Your task to perform on an android device: toggle show notifications on the lock screen Image 0: 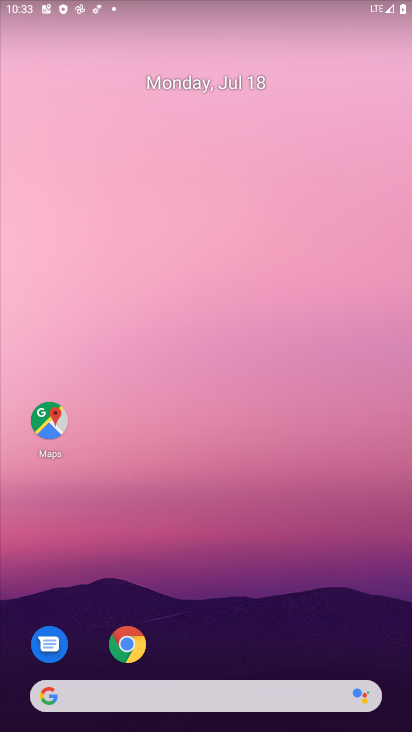
Step 0: drag from (333, 644) to (328, 180)
Your task to perform on an android device: toggle show notifications on the lock screen Image 1: 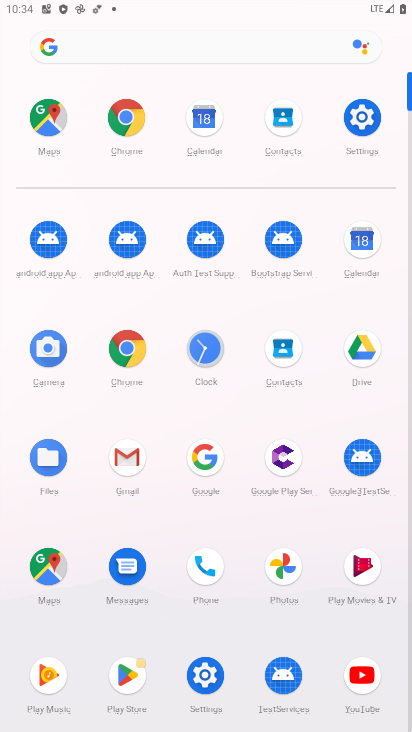
Step 1: click (362, 124)
Your task to perform on an android device: toggle show notifications on the lock screen Image 2: 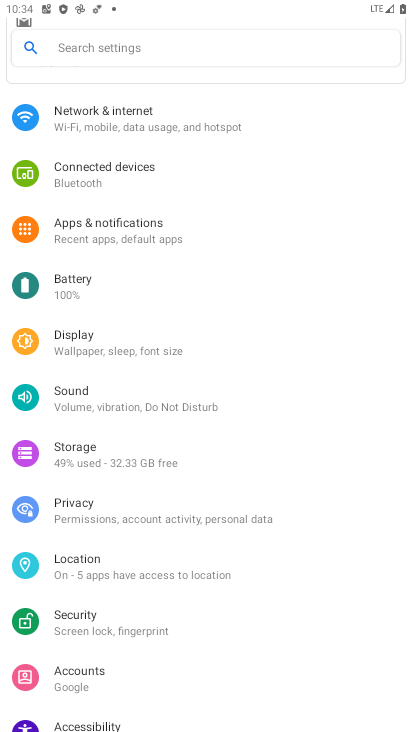
Step 2: drag from (332, 396) to (333, 331)
Your task to perform on an android device: toggle show notifications on the lock screen Image 3: 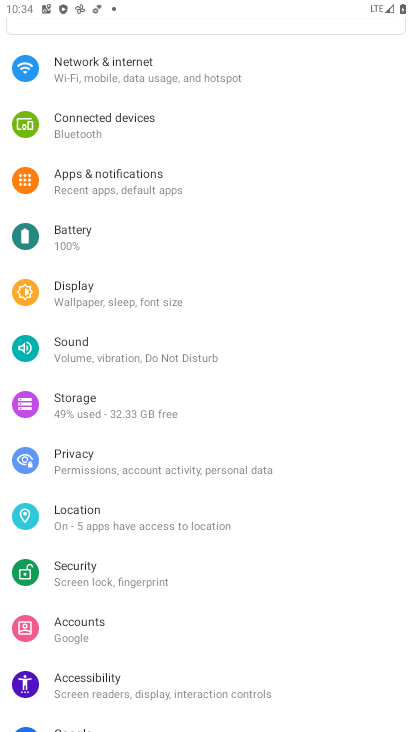
Step 3: drag from (329, 407) to (337, 340)
Your task to perform on an android device: toggle show notifications on the lock screen Image 4: 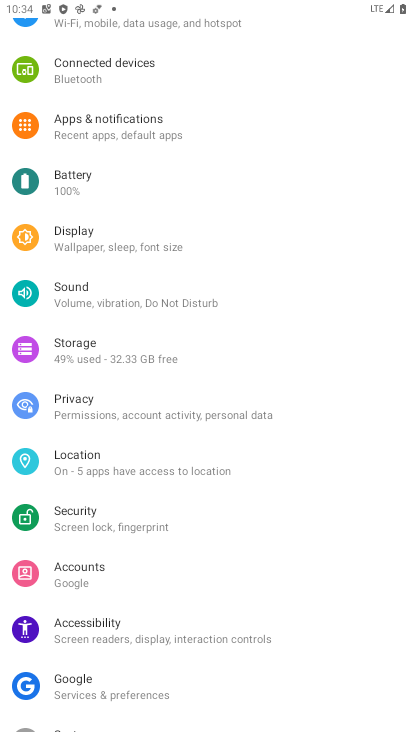
Step 4: drag from (325, 439) to (330, 368)
Your task to perform on an android device: toggle show notifications on the lock screen Image 5: 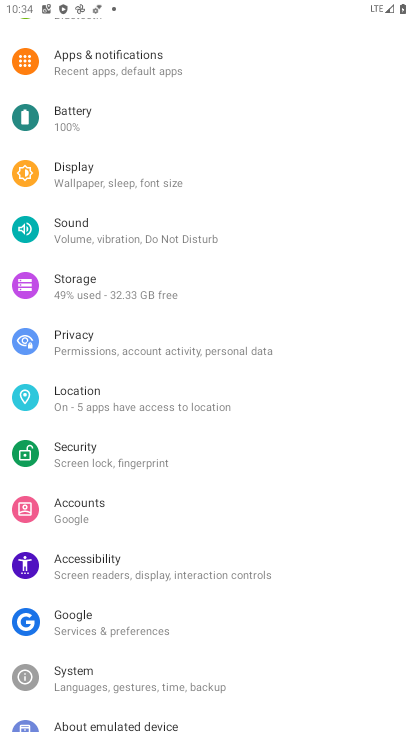
Step 5: drag from (325, 454) to (336, 371)
Your task to perform on an android device: toggle show notifications on the lock screen Image 6: 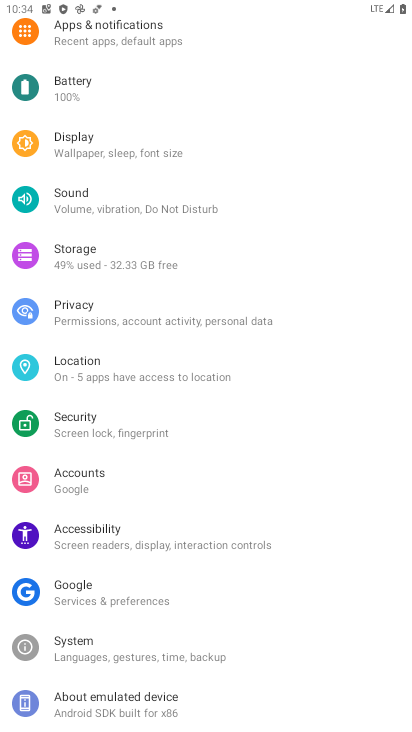
Step 6: drag from (329, 306) to (325, 389)
Your task to perform on an android device: toggle show notifications on the lock screen Image 7: 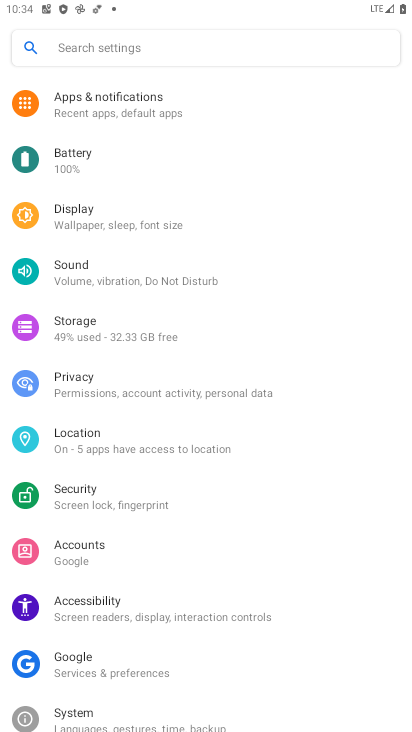
Step 7: drag from (320, 262) to (329, 357)
Your task to perform on an android device: toggle show notifications on the lock screen Image 8: 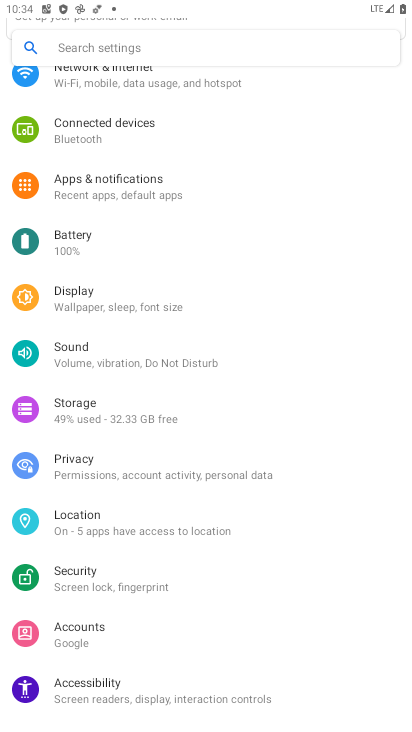
Step 8: drag from (320, 195) to (323, 320)
Your task to perform on an android device: toggle show notifications on the lock screen Image 9: 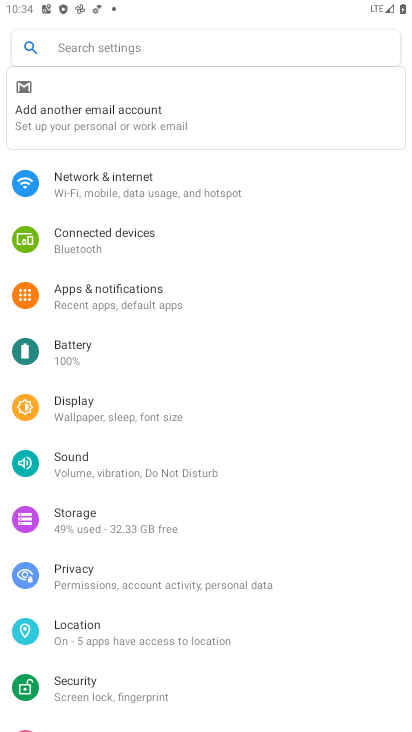
Step 9: click (179, 297)
Your task to perform on an android device: toggle show notifications on the lock screen Image 10: 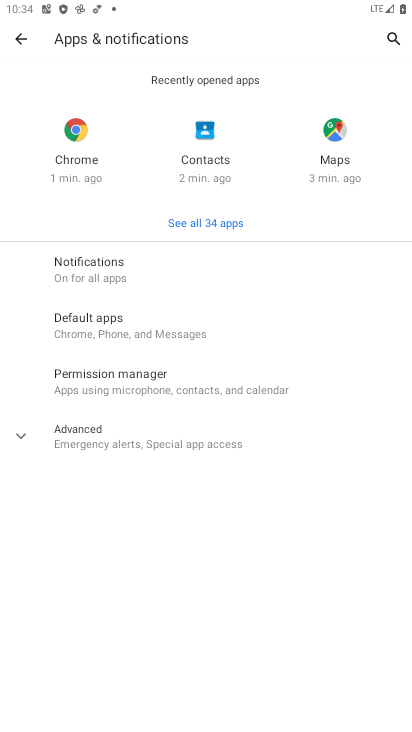
Step 10: click (130, 271)
Your task to perform on an android device: toggle show notifications on the lock screen Image 11: 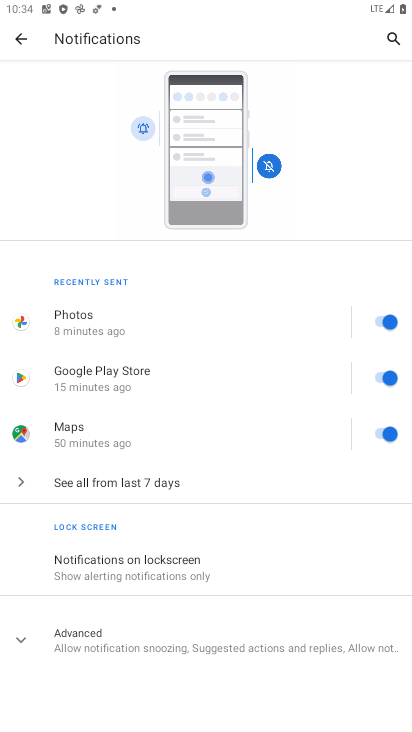
Step 11: drag from (264, 456) to (266, 382)
Your task to perform on an android device: toggle show notifications on the lock screen Image 12: 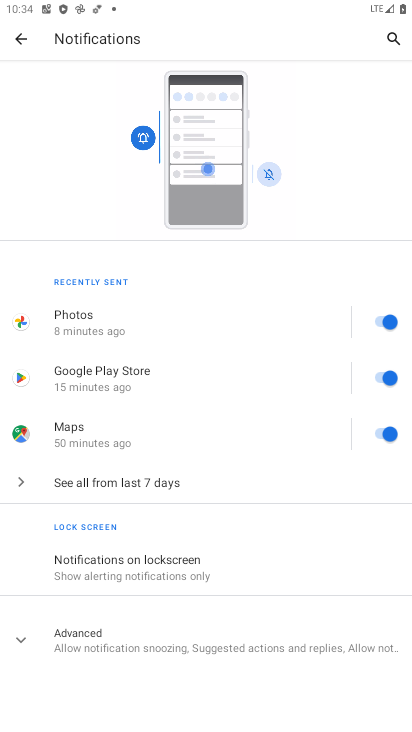
Step 12: click (234, 562)
Your task to perform on an android device: toggle show notifications on the lock screen Image 13: 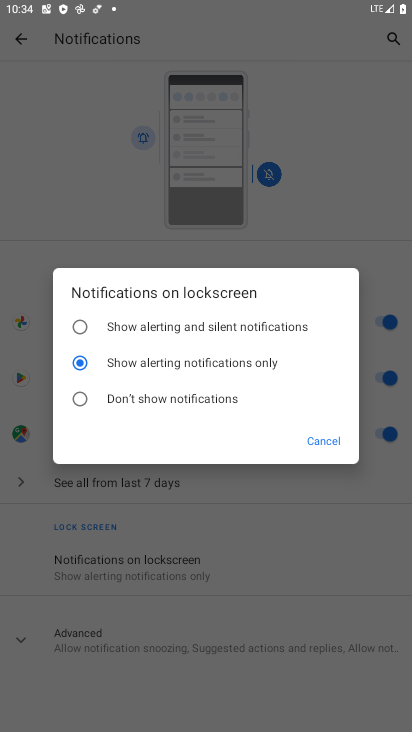
Step 13: click (135, 319)
Your task to perform on an android device: toggle show notifications on the lock screen Image 14: 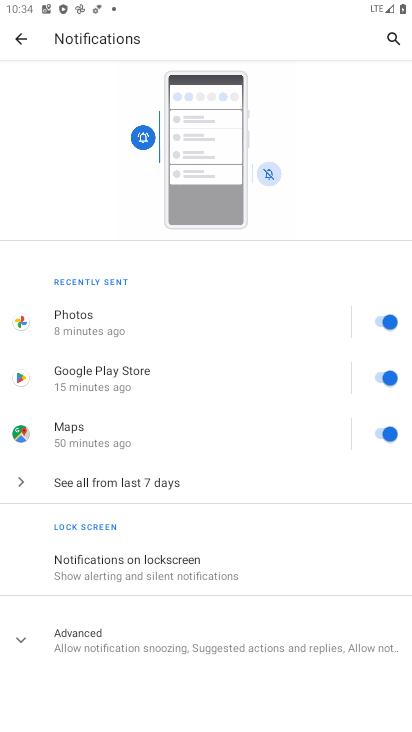
Step 14: task complete